Your task to perform on an android device: Open Youtube and go to the subscriptions tab Image 0: 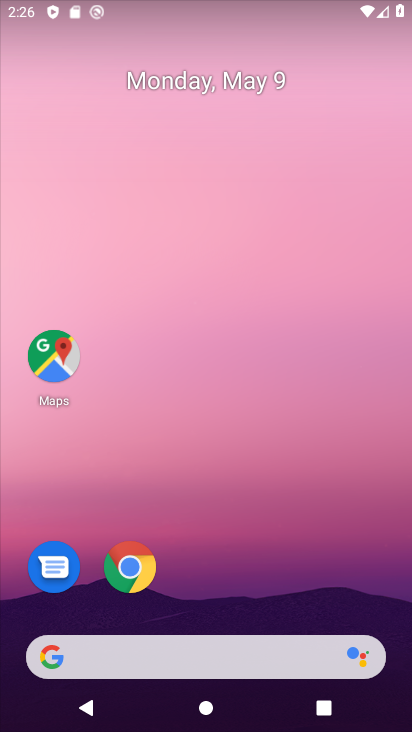
Step 0: drag from (238, 587) to (228, 136)
Your task to perform on an android device: Open Youtube and go to the subscriptions tab Image 1: 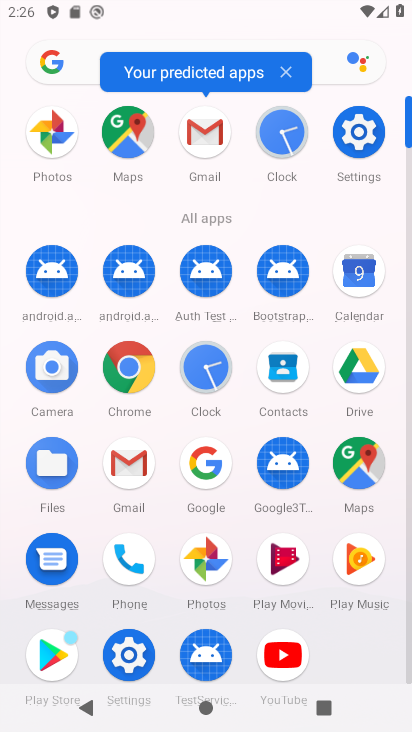
Step 1: click (273, 662)
Your task to perform on an android device: Open Youtube and go to the subscriptions tab Image 2: 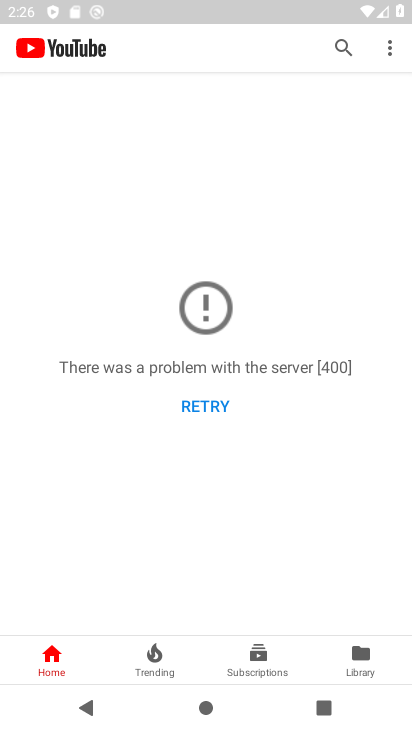
Step 2: click (259, 648)
Your task to perform on an android device: Open Youtube and go to the subscriptions tab Image 3: 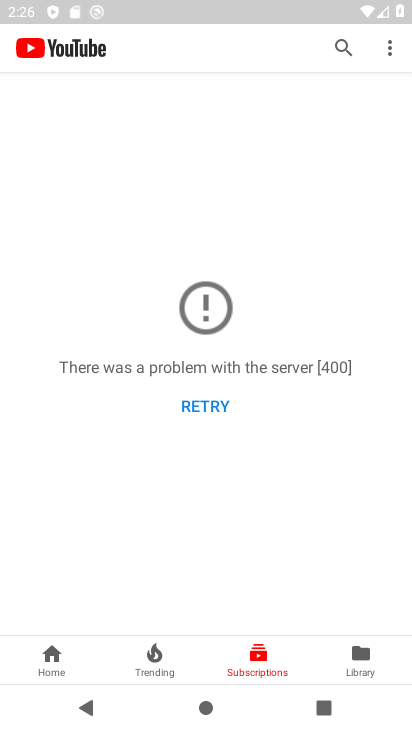
Step 3: task complete